Your task to perform on an android device: What is the news today? Image 0: 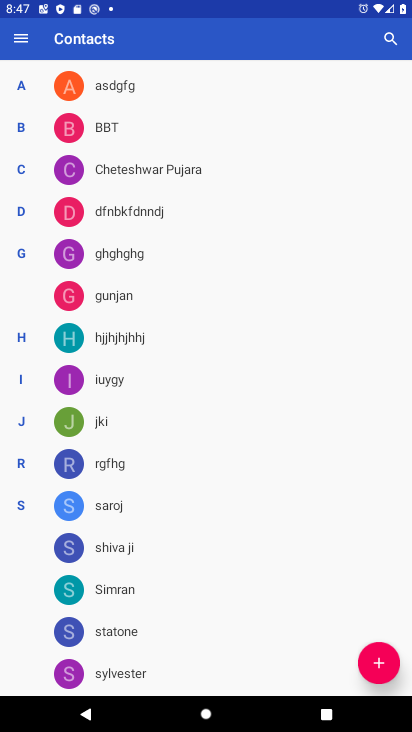
Step 0: press home button
Your task to perform on an android device: What is the news today? Image 1: 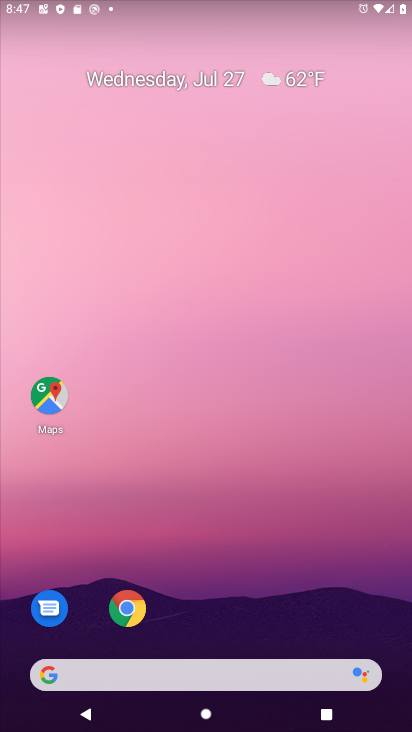
Step 1: click (123, 678)
Your task to perform on an android device: What is the news today? Image 2: 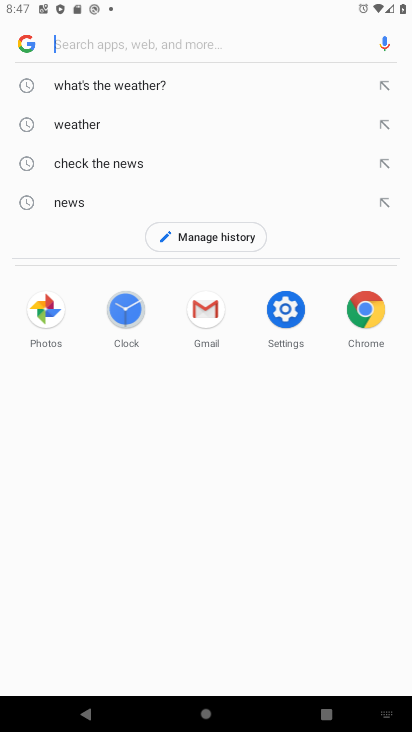
Step 2: type "What is the news today?"
Your task to perform on an android device: What is the news today? Image 3: 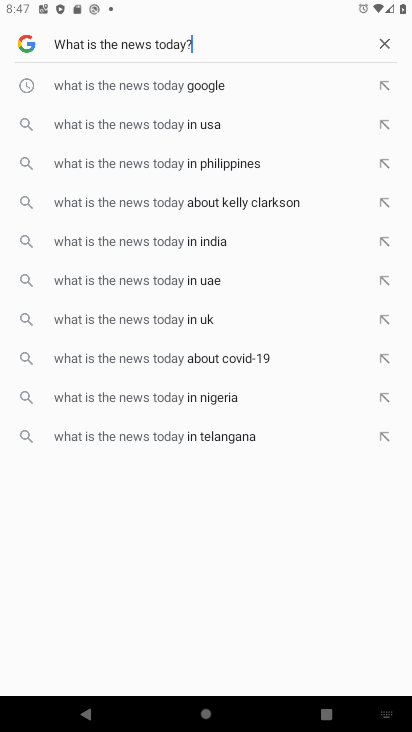
Step 3: press enter
Your task to perform on an android device: What is the news today? Image 4: 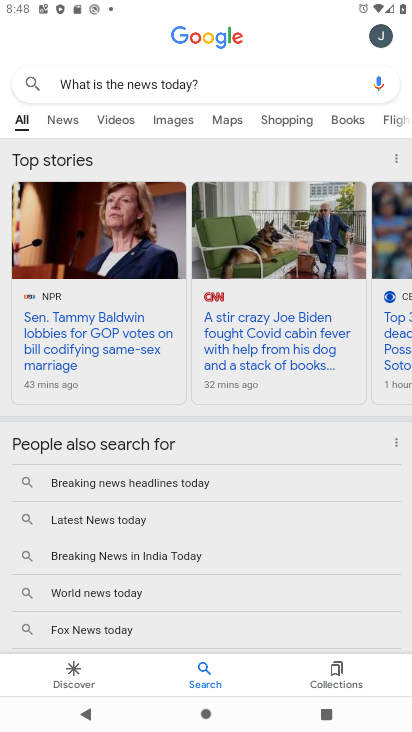
Step 4: task complete